Your task to perform on an android device: turn off smart reply in the gmail app Image 0: 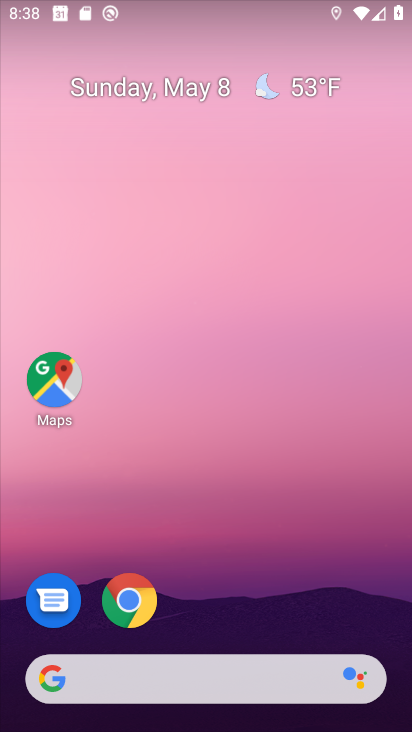
Step 0: drag from (229, 600) to (233, 139)
Your task to perform on an android device: turn off smart reply in the gmail app Image 1: 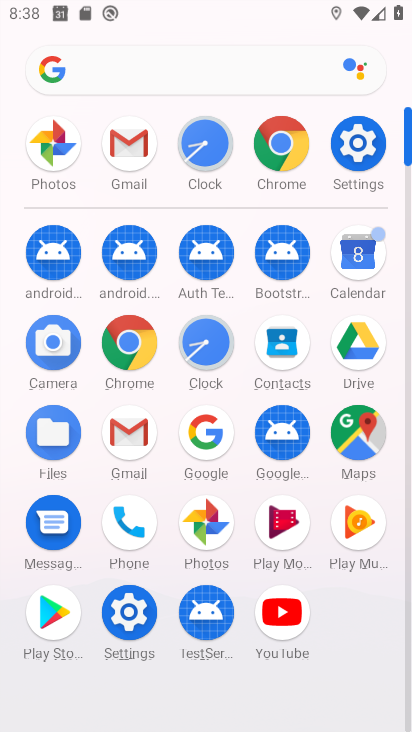
Step 1: click (135, 424)
Your task to perform on an android device: turn off smart reply in the gmail app Image 2: 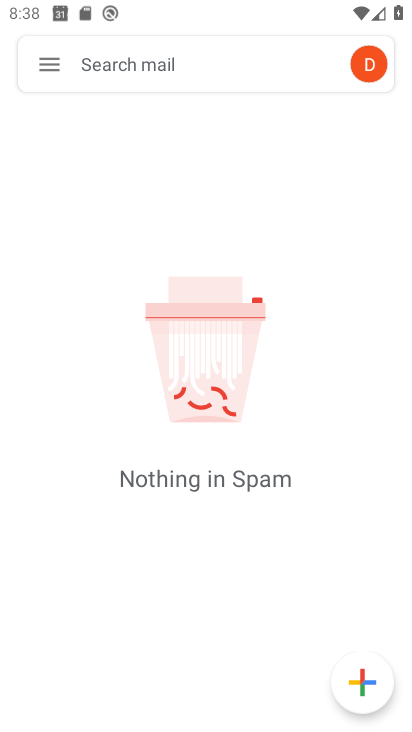
Step 2: click (55, 56)
Your task to perform on an android device: turn off smart reply in the gmail app Image 3: 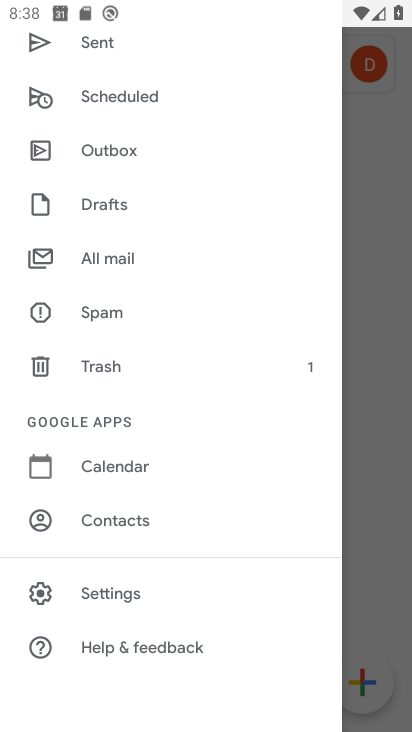
Step 3: click (153, 579)
Your task to perform on an android device: turn off smart reply in the gmail app Image 4: 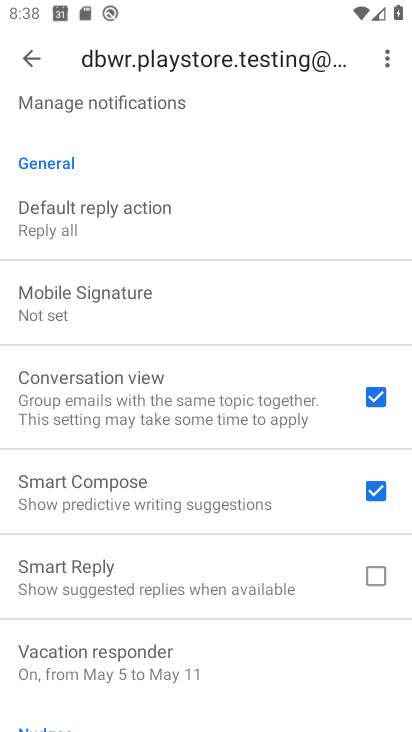
Step 4: task complete